Your task to perform on an android device: Open Youtube and go to "Your channel" Image 0: 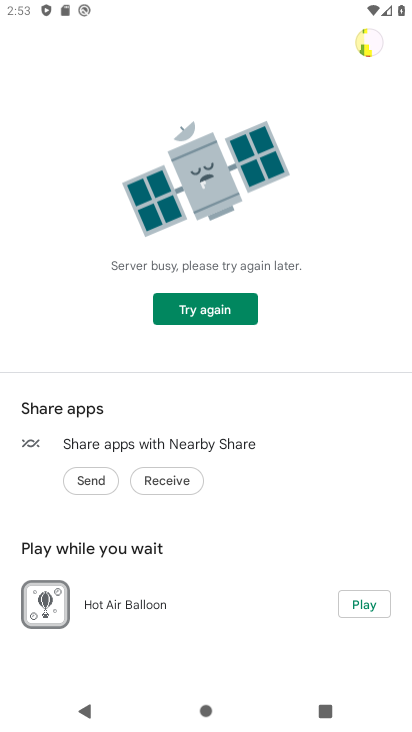
Step 0: press home button
Your task to perform on an android device: Open Youtube and go to "Your channel" Image 1: 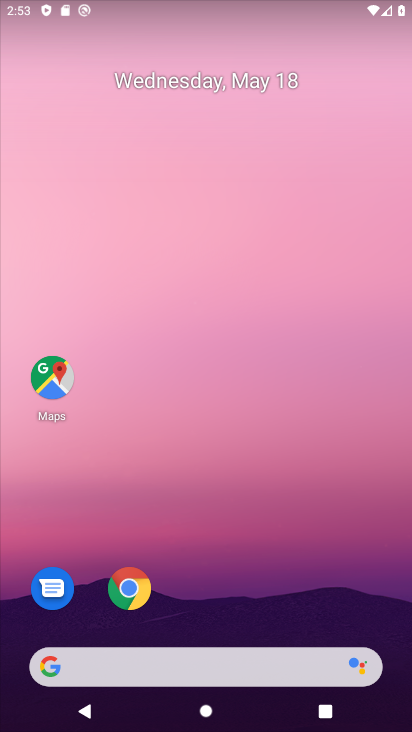
Step 1: drag from (251, 552) to (253, 0)
Your task to perform on an android device: Open Youtube and go to "Your channel" Image 2: 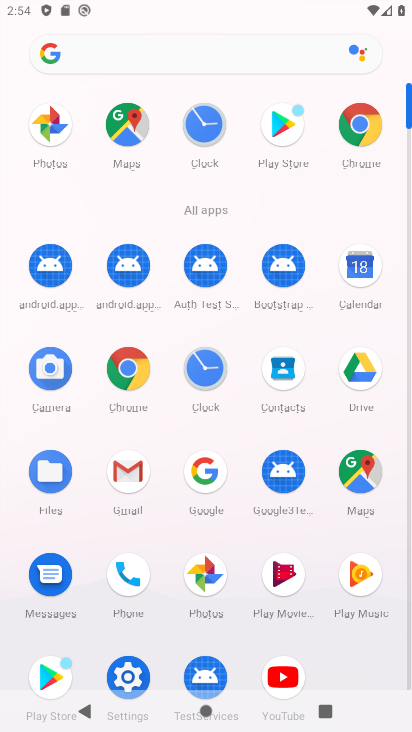
Step 2: click (278, 660)
Your task to perform on an android device: Open Youtube and go to "Your channel" Image 3: 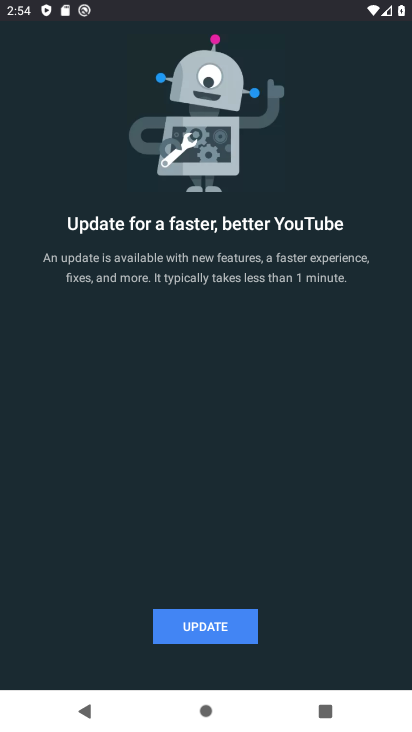
Step 3: click (197, 630)
Your task to perform on an android device: Open Youtube and go to "Your channel" Image 4: 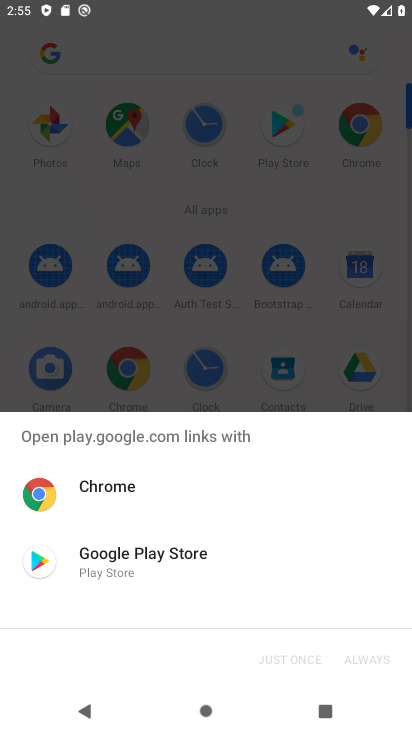
Step 4: click (216, 564)
Your task to perform on an android device: Open Youtube and go to "Your channel" Image 5: 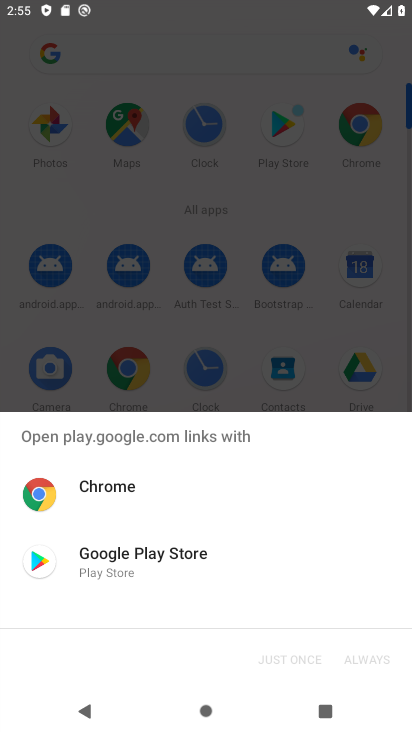
Step 5: click (168, 574)
Your task to perform on an android device: Open Youtube and go to "Your channel" Image 6: 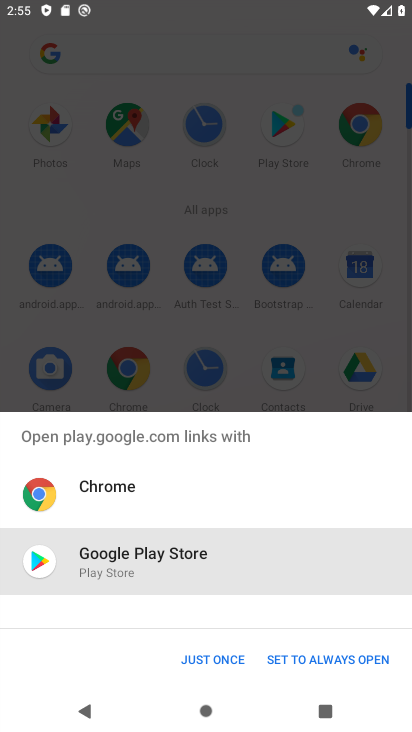
Step 6: click (191, 674)
Your task to perform on an android device: Open Youtube and go to "Your channel" Image 7: 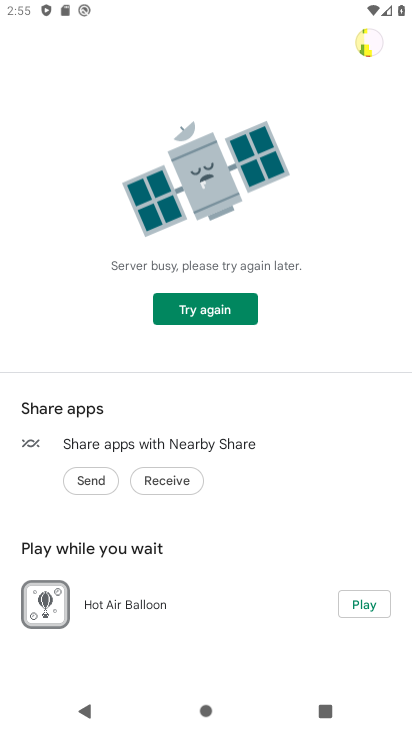
Step 7: task complete